Your task to perform on an android device: open a bookmark in the chrome app Image 0: 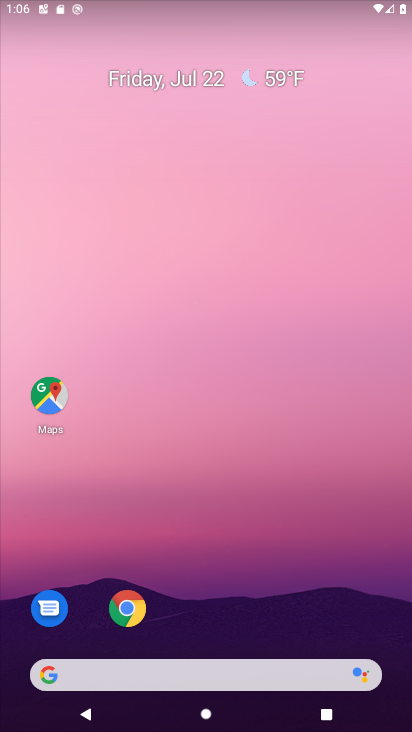
Step 0: click (132, 606)
Your task to perform on an android device: open a bookmark in the chrome app Image 1: 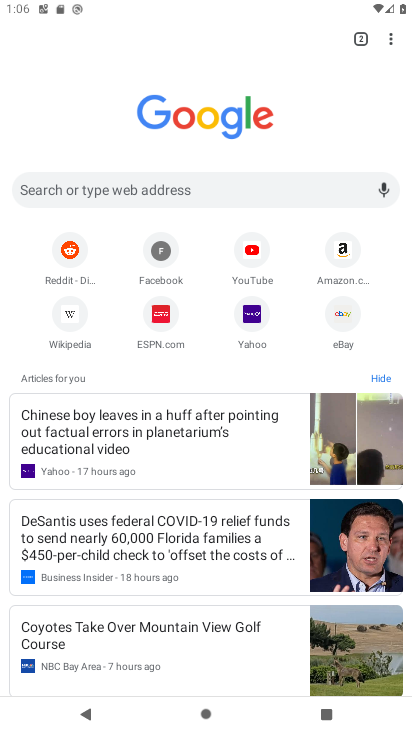
Step 1: click (391, 39)
Your task to perform on an android device: open a bookmark in the chrome app Image 2: 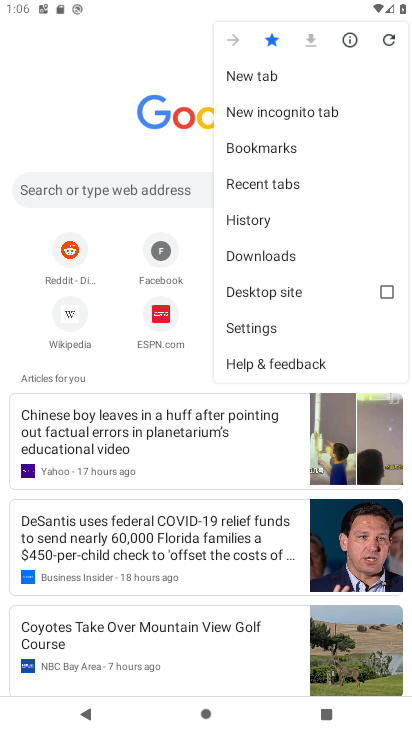
Step 2: click (259, 153)
Your task to perform on an android device: open a bookmark in the chrome app Image 3: 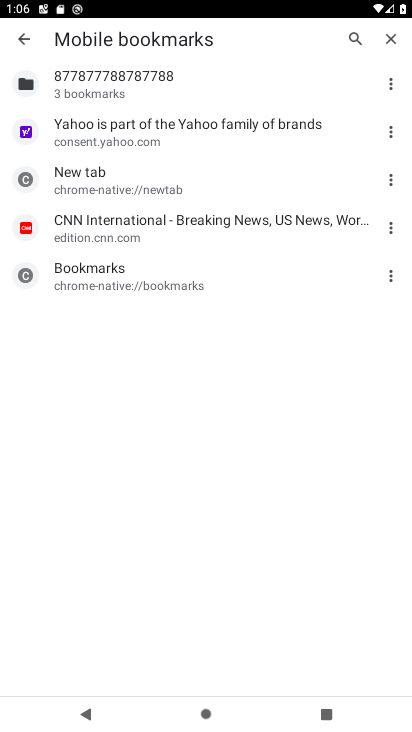
Step 3: click (140, 143)
Your task to perform on an android device: open a bookmark in the chrome app Image 4: 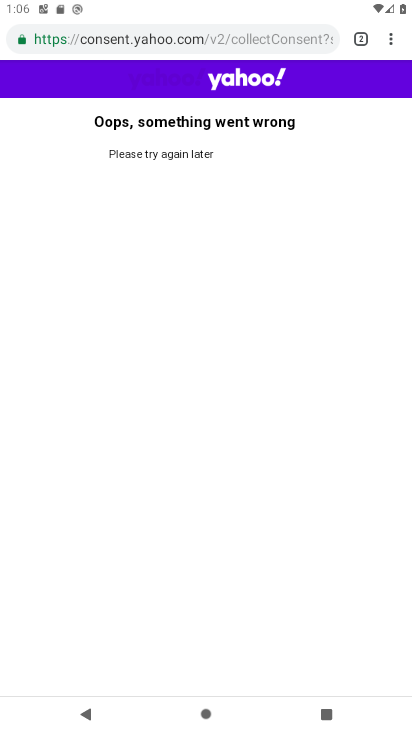
Step 4: task complete